Your task to perform on an android device: turn notification dots on Image 0: 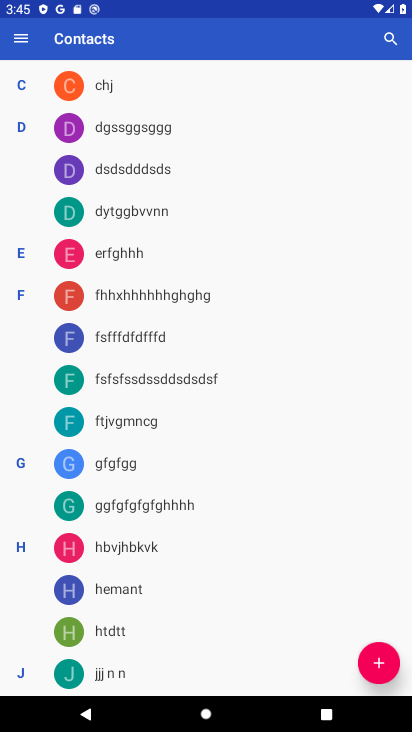
Step 0: task complete